Your task to perform on an android device: Open calendar and show me the third week of next month Image 0: 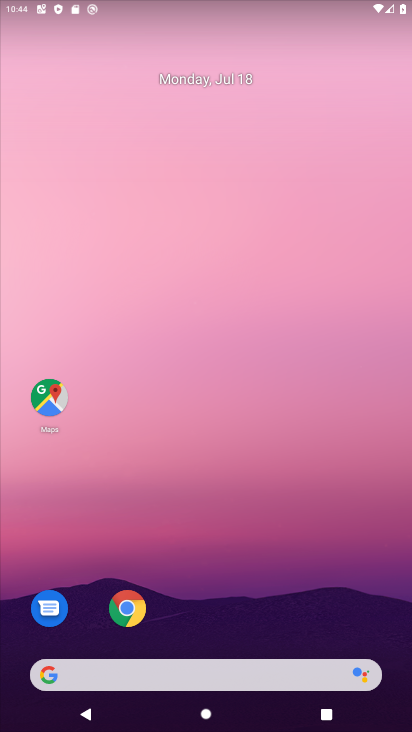
Step 0: drag from (225, 588) to (304, 343)
Your task to perform on an android device: Open calendar and show me the third week of next month Image 1: 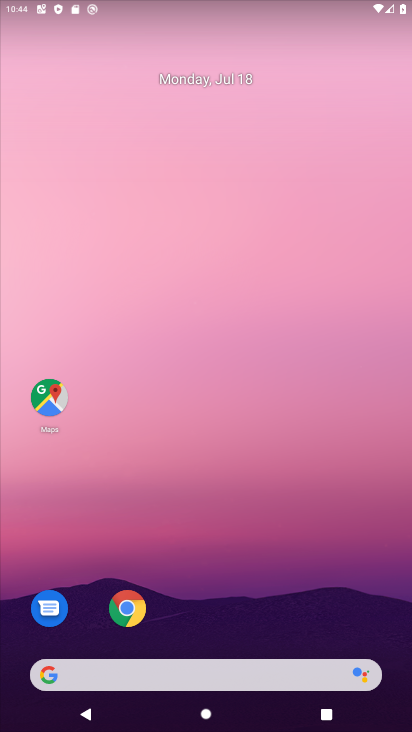
Step 1: drag from (250, 640) to (213, 22)
Your task to perform on an android device: Open calendar and show me the third week of next month Image 2: 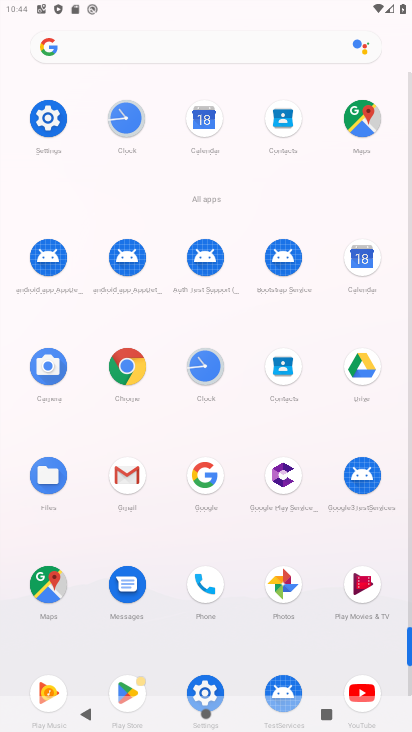
Step 2: click (365, 274)
Your task to perform on an android device: Open calendar and show me the third week of next month Image 3: 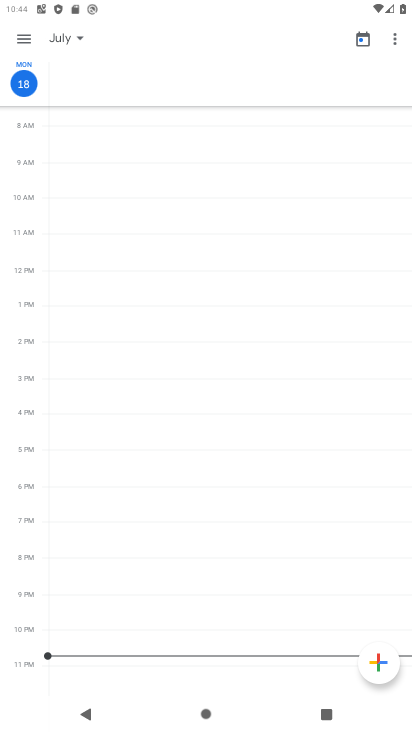
Step 3: click (21, 47)
Your task to perform on an android device: Open calendar and show me the third week of next month Image 4: 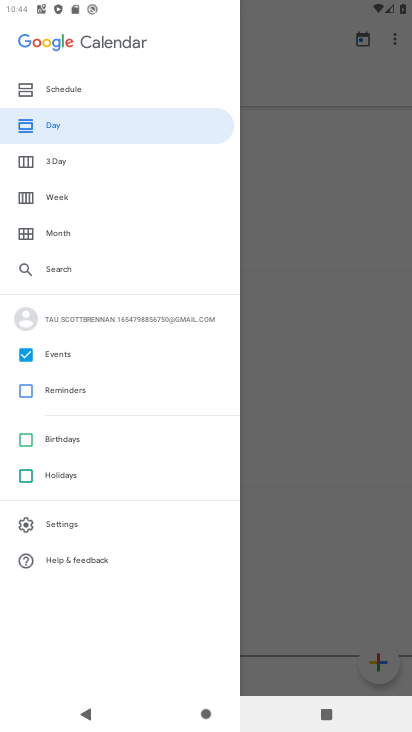
Step 4: click (71, 203)
Your task to perform on an android device: Open calendar and show me the third week of next month Image 5: 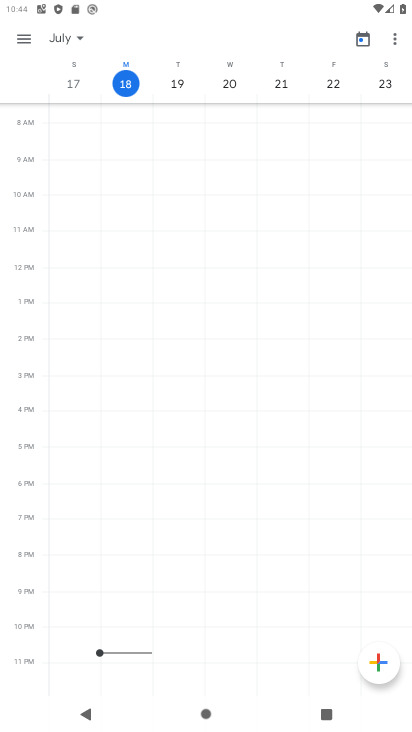
Step 5: task complete